Your task to perform on an android device: Is it going to rain today? Image 0: 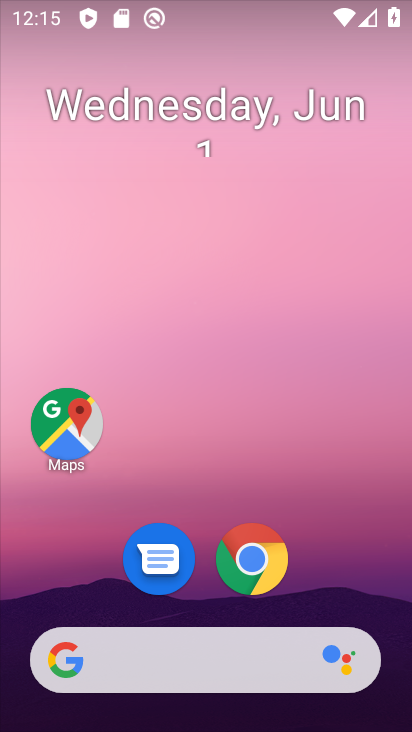
Step 0: drag from (309, 576) to (337, 259)
Your task to perform on an android device: Is it going to rain today? Image 1: 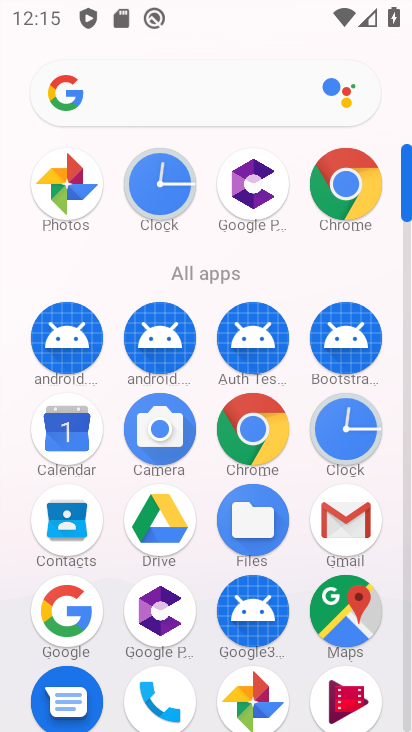
Step 1: click (259, 419)
Your task to perform on an android device: Is it going to rain today? Image 2: 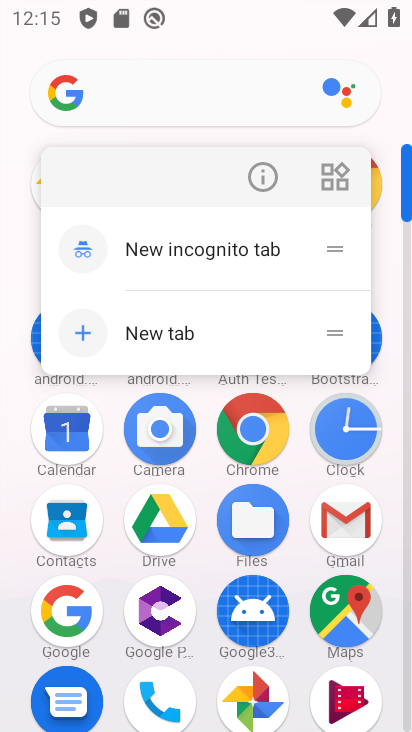
Step 2: click (238, 428)
Your task to perform on an android device: Is it going to rain today? Image 3: 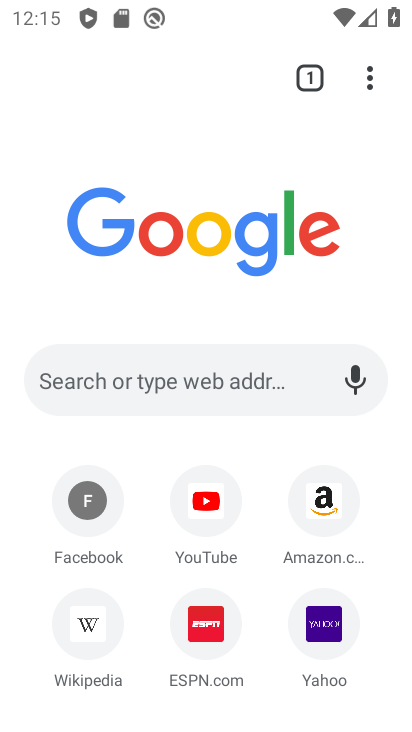
Step 3: click (164, 362)
Your task to perform on an android device: Is it going to rain today? Image 4: 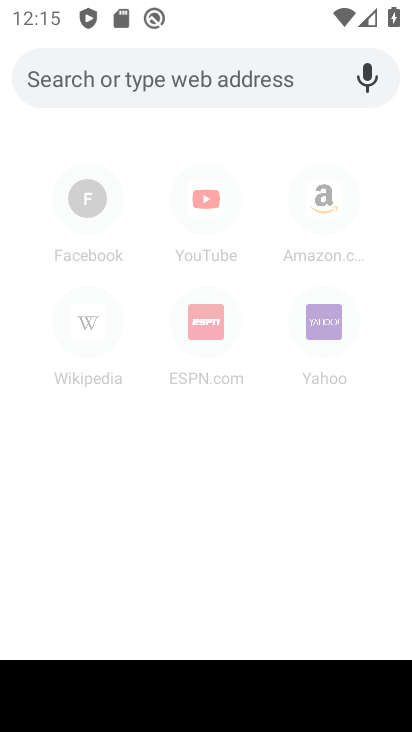
Step 4: type "Is it going to rain today?"
Your task to perform on an android device: Is it going to rain today? Image 5: 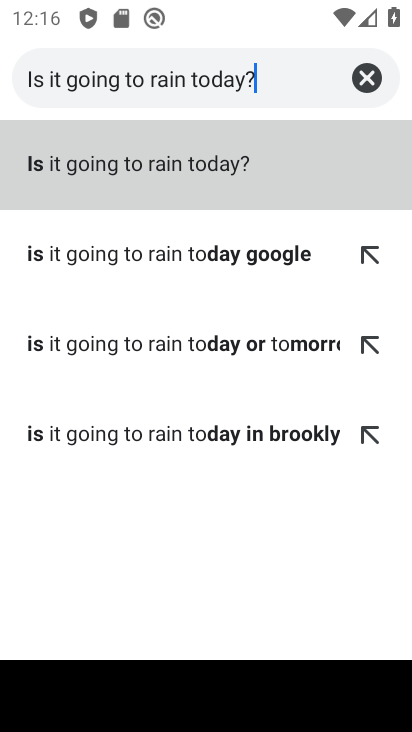
Step 5: click (237, 159)
Your task to perform on an android device: Is it going to rain today? Image 6: 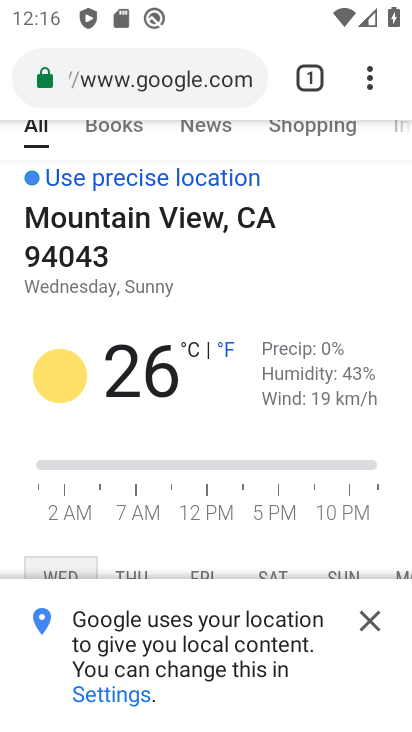
Step 6: task complete